Your task to perform on an android device: Open accessibility settings Image 0: 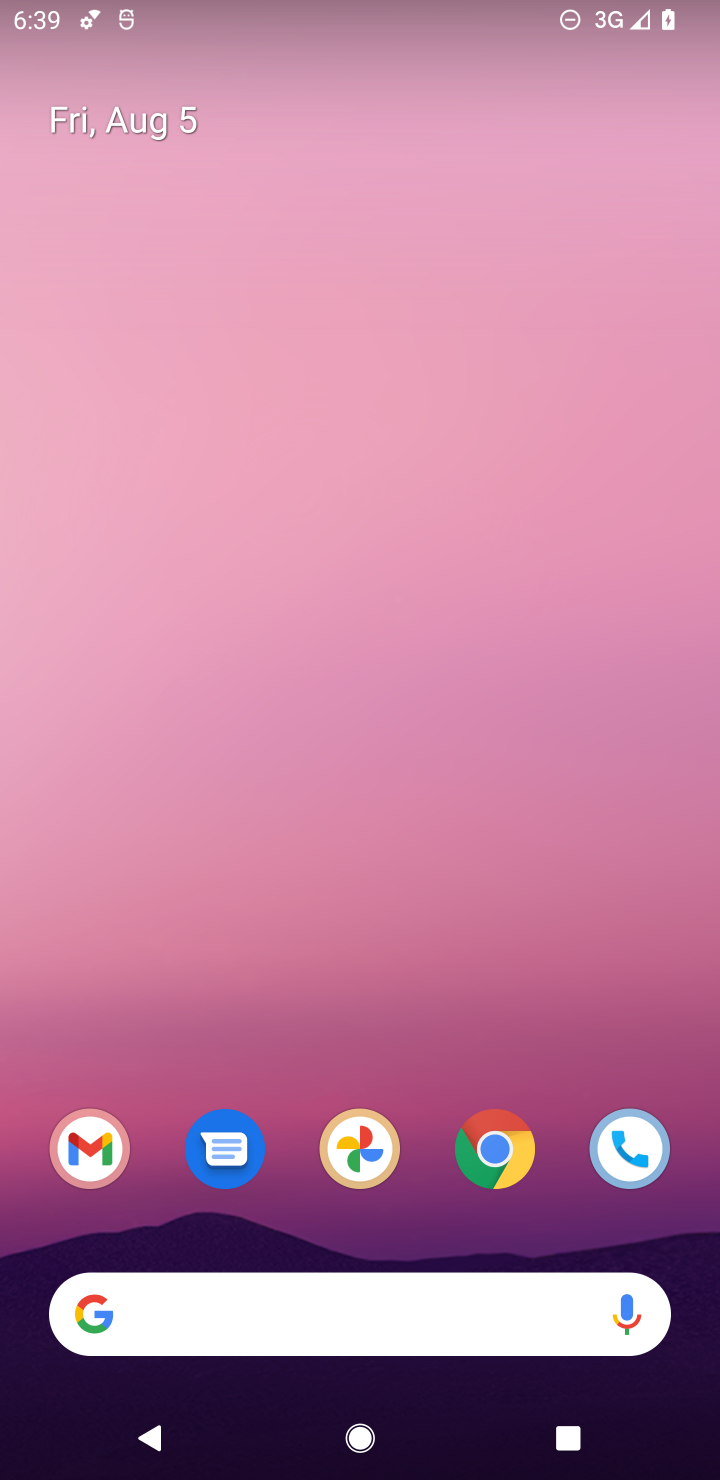
Step 0: drag from (497, 1031) to (453, 159)
Your task to perform on an android device: Open accessibility settings Image 1: 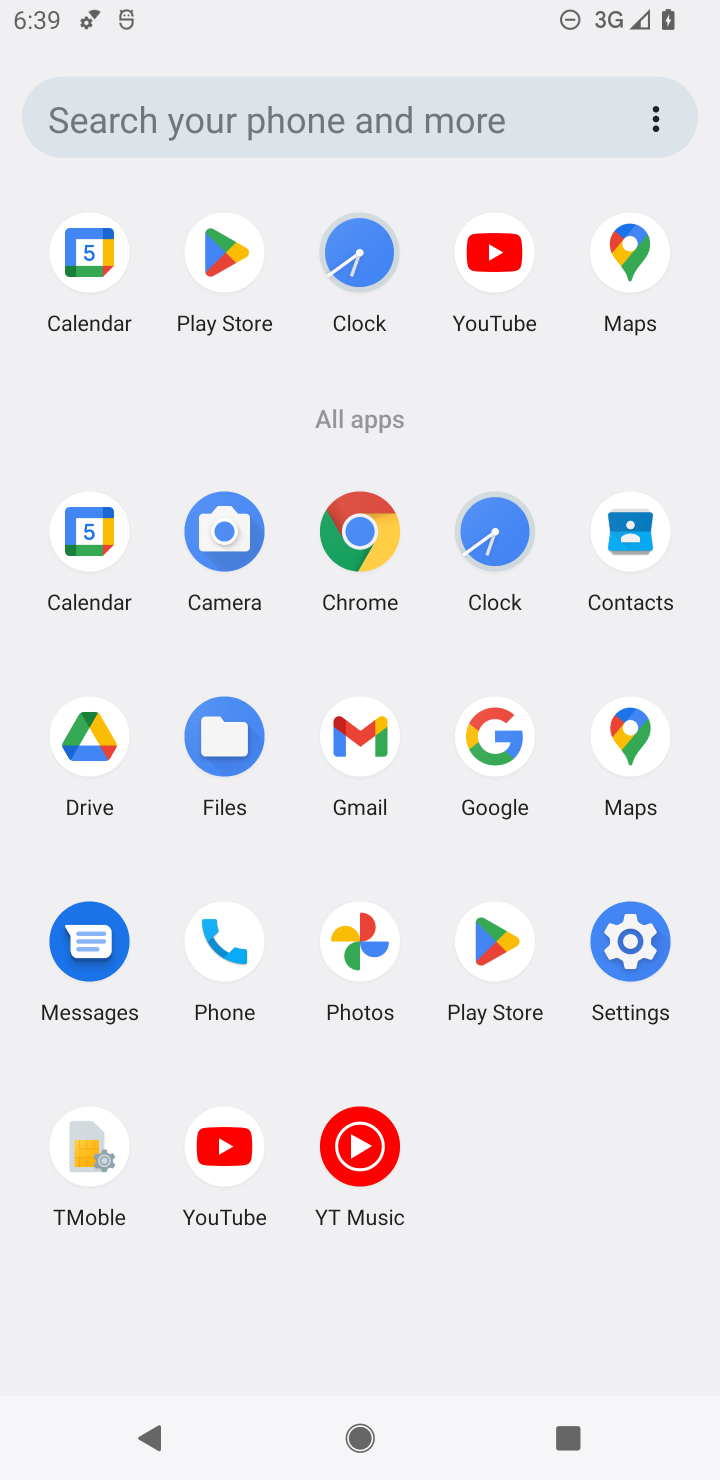
Step 1: click (631, 948)
Your task to perform on an android device: Open accessibility settings Image 2: 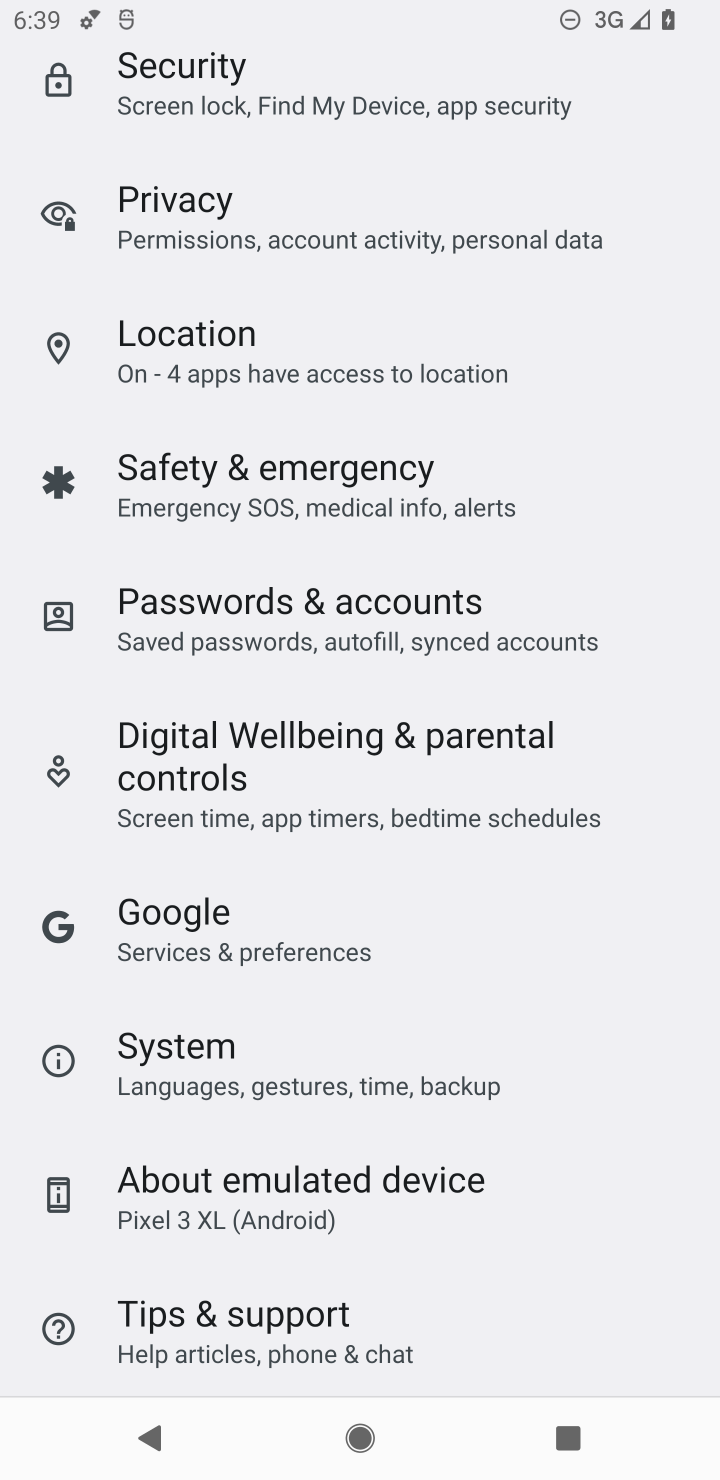
Step 2: drag from (609, 828) to (546, 1475)
Your task to perform on an android device: Open accessibility settings Image 3: 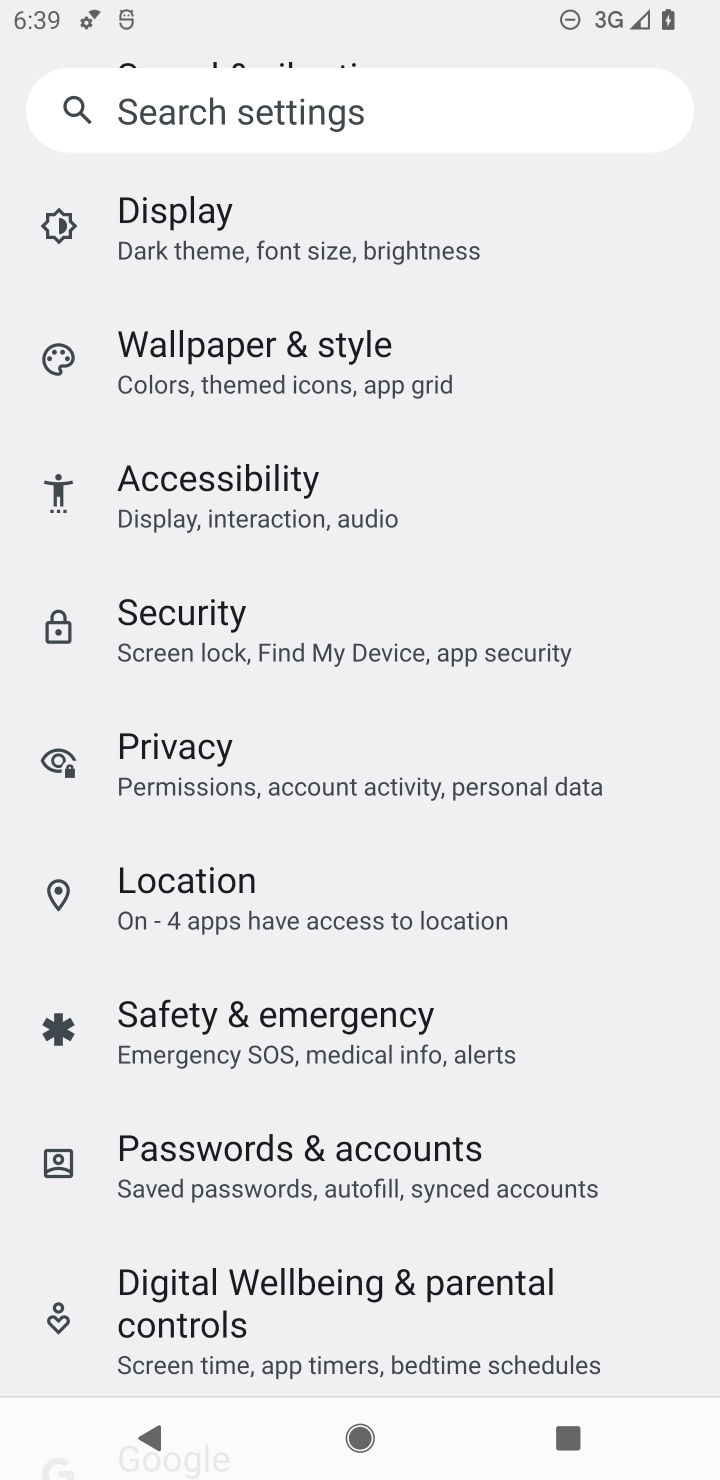
Step 3: click (187, 494)
Your task to perform on an android device: Open accessibility settings Image 4: 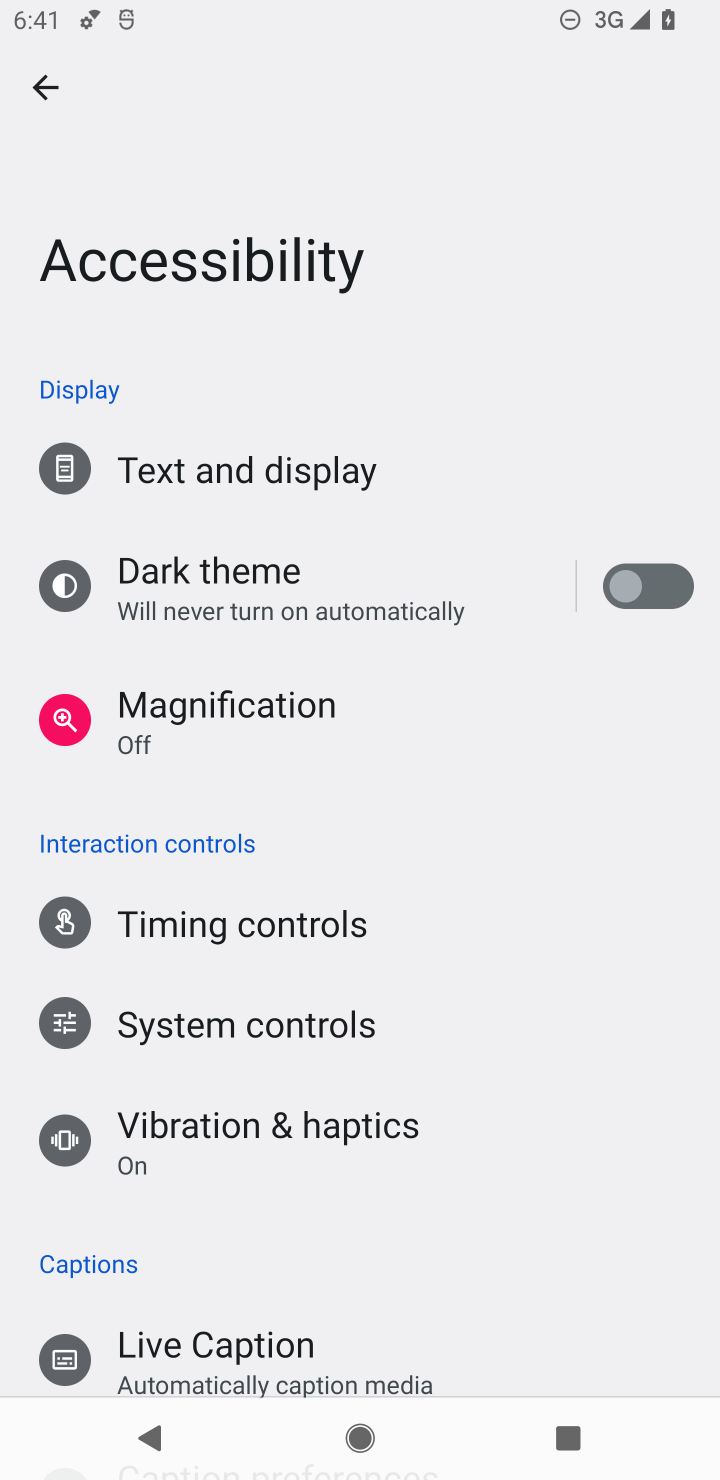
Step 4: task complete